Your task to perform on an android device: Clear the cart on walmart. Search for "jbl flip 4" on walmart, select the first entry, add it to the cart, then select checkout. Image 0: 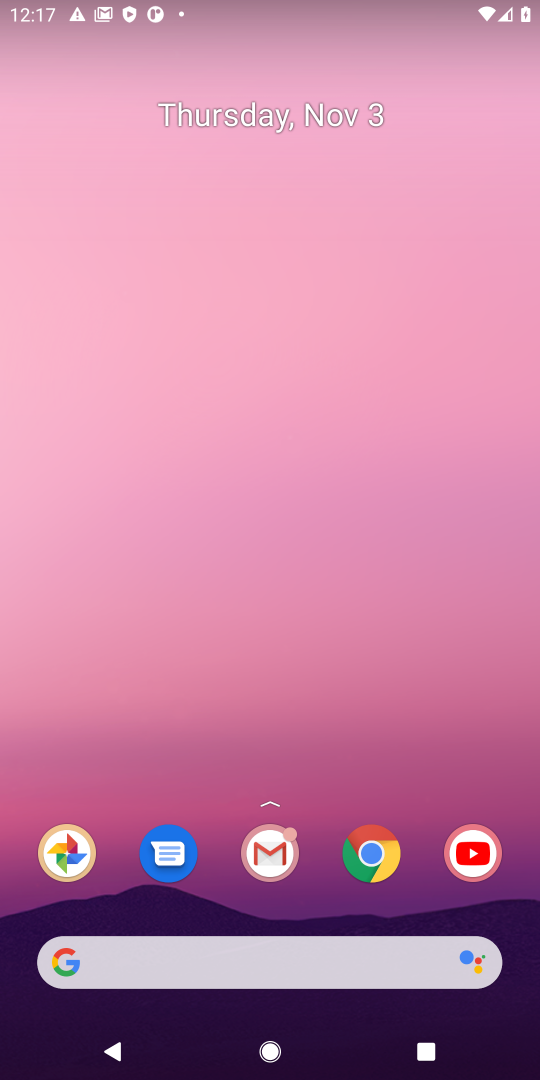
Step 0: press home button
Your task to perform on an android device: Clear the cart on walmart. Search for "jbl flip 4" on walmart, select the first entry, add it to the cart, then select checkout. Image 1: 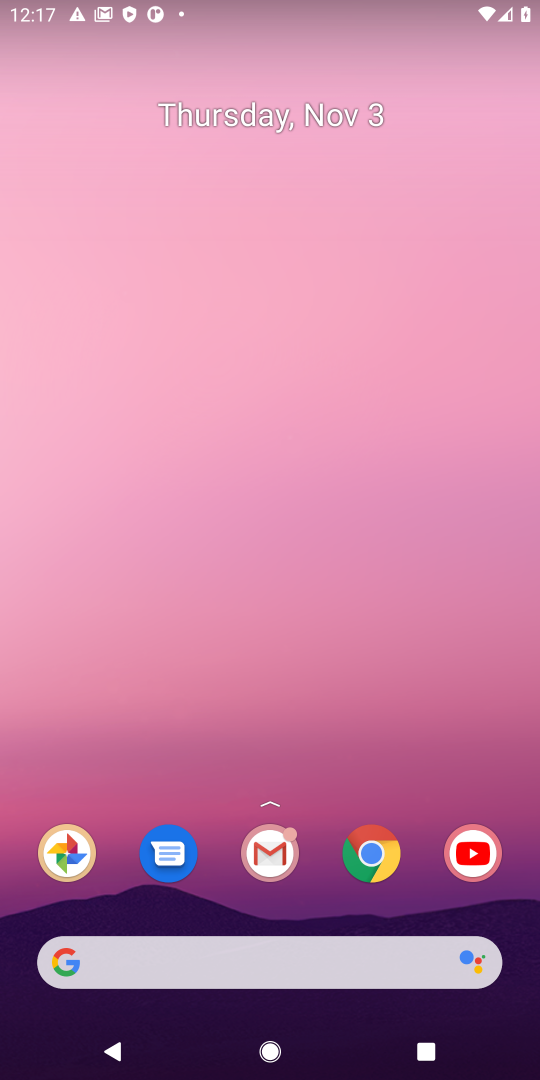
Step 1: click (373, 855)
Your task to perform on an android device: Clear the cart on walmart. Search for "jbl flip 4" on walmart, select the first entry, add it to the cart, then select checkout. Image 2: 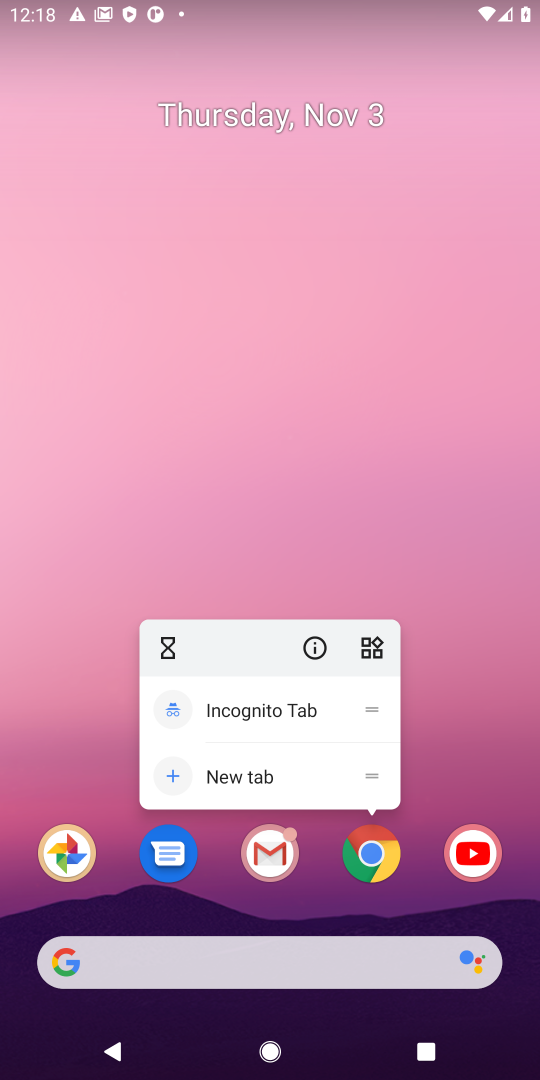
Step 2: click (360, 862)
Your task to perform on an android device: Clear the cart on walmart. Search for "jbl flip 4" on walmart, select the first entry, add it to the cart, then select checkout. Image 3: 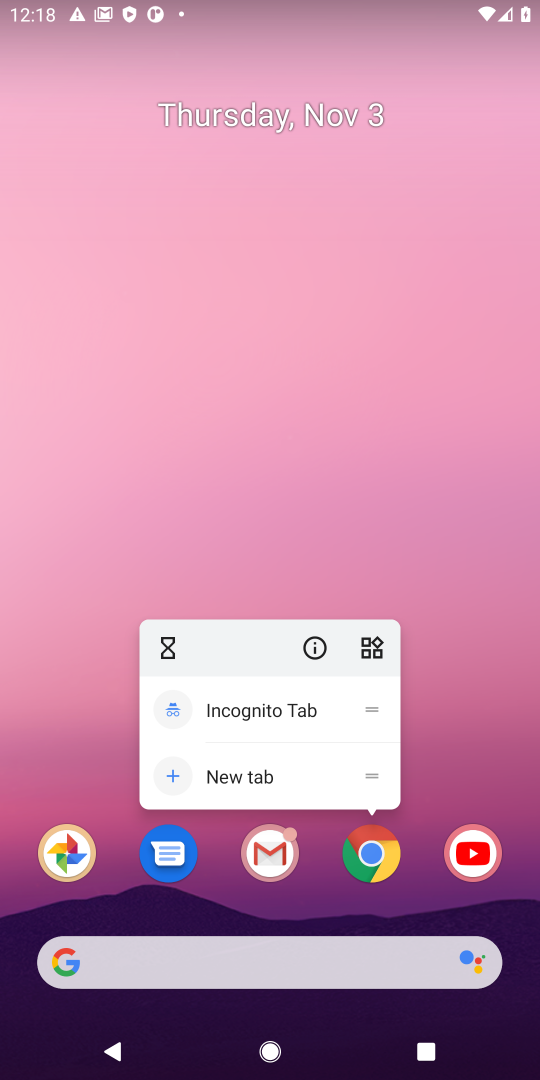
Step 3: click (363, 858)
Your task to perform on an android device: Clear the cart on walmart. Search for "jbl flip 4" on walmart, select the first entry, add it to the cart, then select checkout. Image 4: 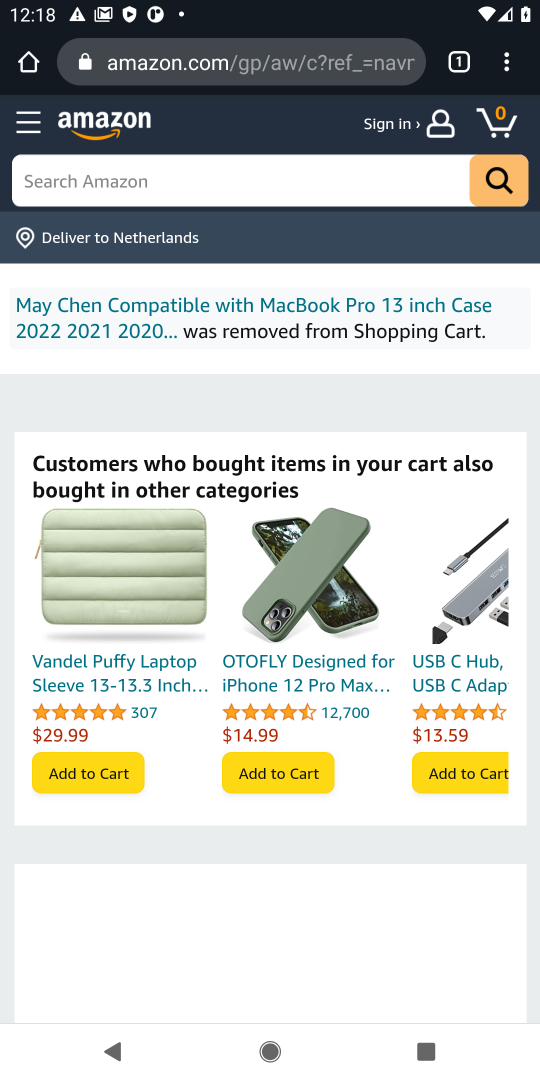
Step 4: click (221, 58)
Your task to perform on an android device: Clear the cart on walmart. Search for "jbl flip 4" on walmart, select the first entry, add it to the cart, then select checkout. Image 5: 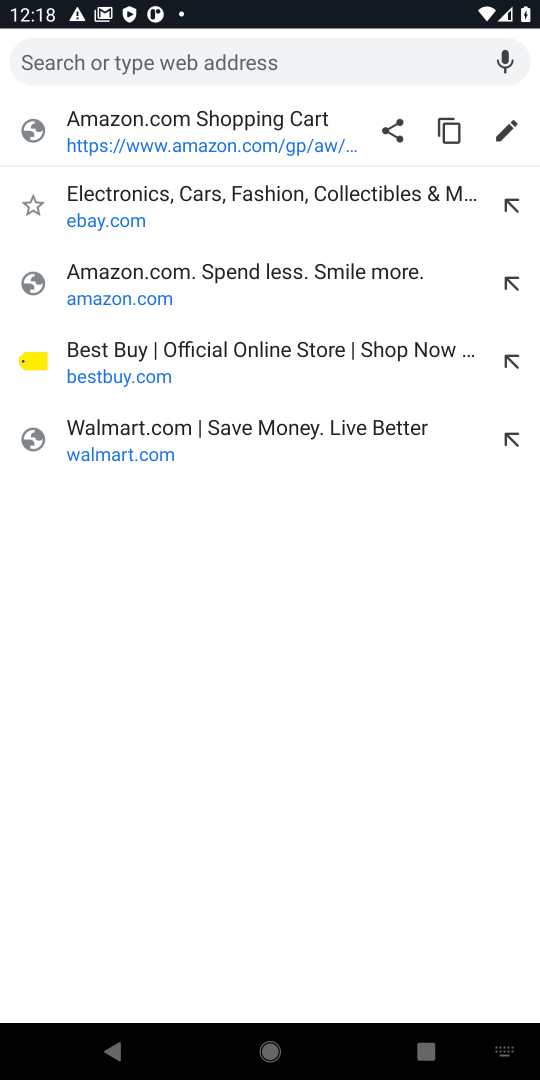
Step 5: click (102, 454)
Your task to perform on an android device: Clear the cart on walmart. Search for "jbl flip 4" on walmart, select the first entry, add it to the cart, then select checkout. Image 6: 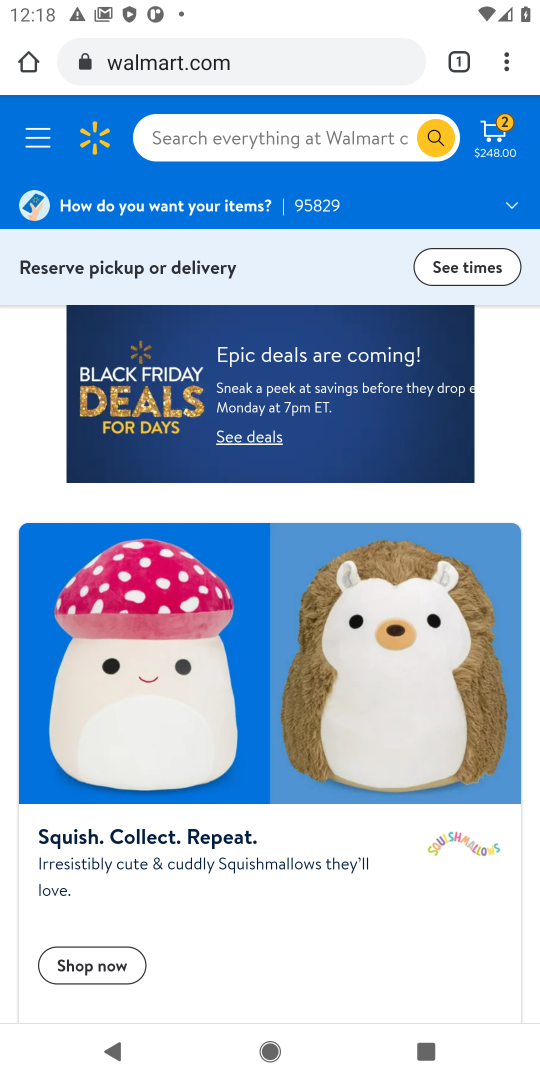
Step 6: click (258, 143)
Your task to perform on an android device: Clear the cart on walmart. Search for "jbl flip 4" on walmart, select the first entry, add it to the cart, then select checkout. Image 7: 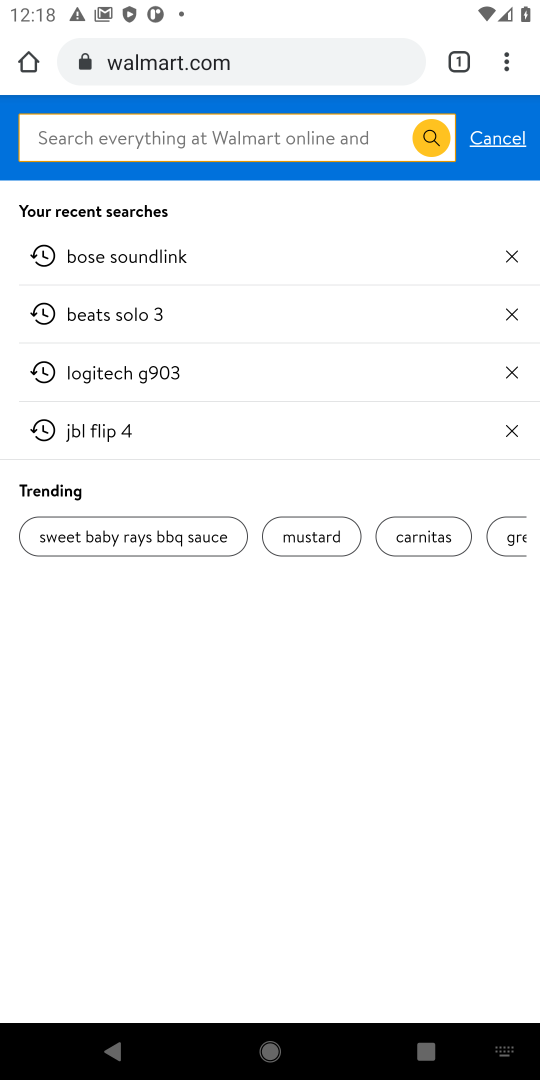
Step 7: type "jbl flip 4"
Your task to perform on an android device: Clear the cart on walmart. Search for "jbl flip 4" on walmart, select the first entry, add it to the cart, then select checkout. Image 8: 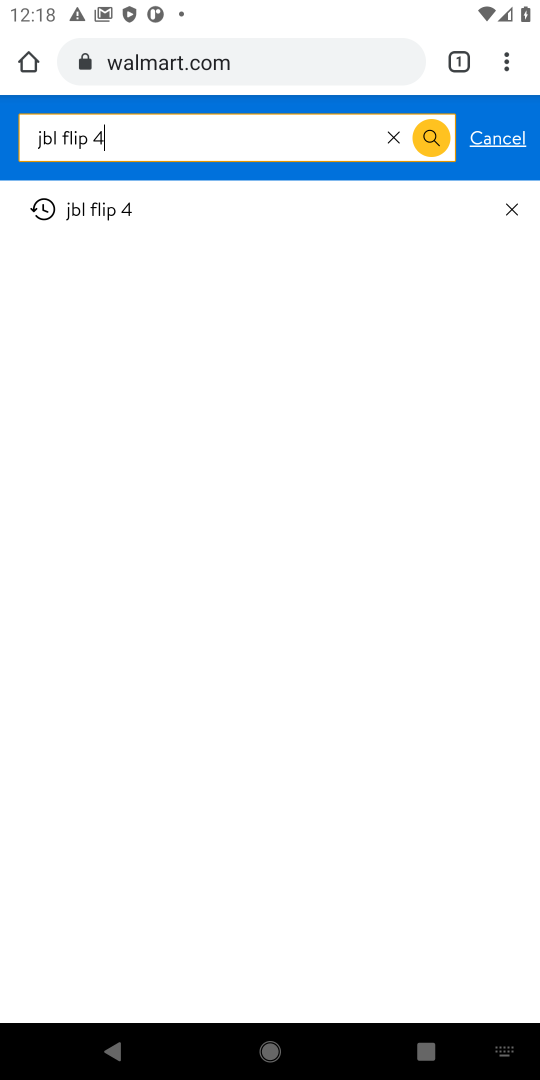
Step 8: press enter
Your task to perform on an android device: Clear the cart on walmart. Search for "jbl flip 4" on walmart, select the first entry, add it to the cart, then select checkout. Image 9: 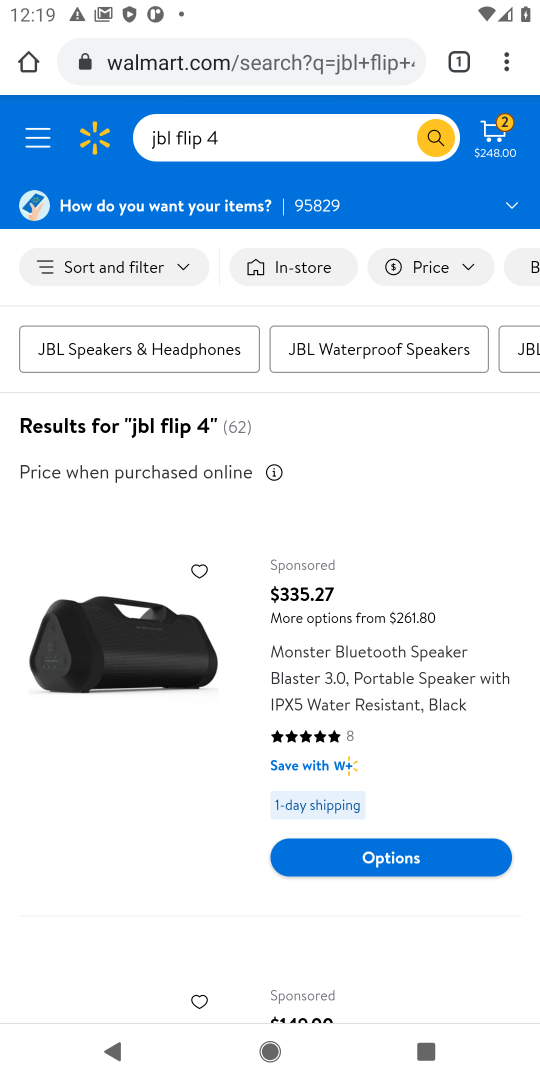
Step 9: click (343, 644)
Your task to perform on an android device: Clear the cart on walmart. Search for "jbl flip 4" on walmart, select the first entry, add it to the cart, then select checkout. Image 10: 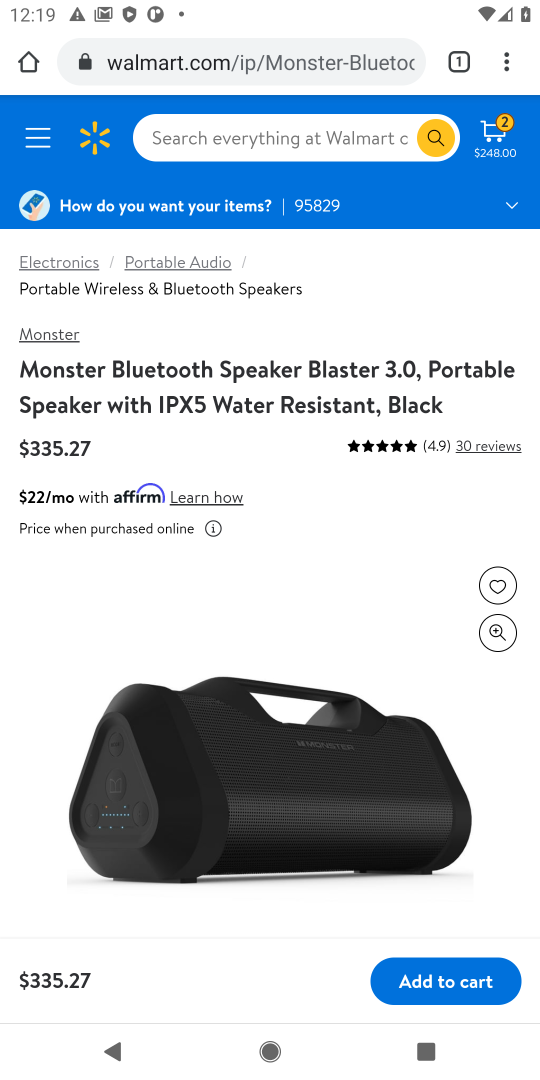
Step 10: task complete